Your task to perform on an android device: Show me popular games on the Play Store Image 0: 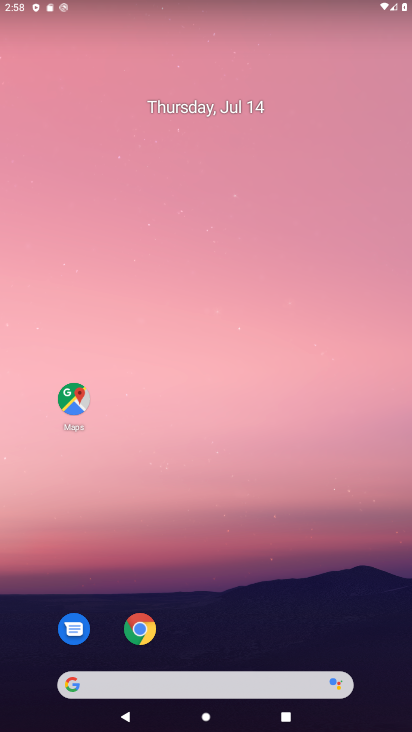
Step 0: drag from (194, 596) to (139, 167)
Your task to perform on an android device: Show me popular games on the Play Store Image 1: 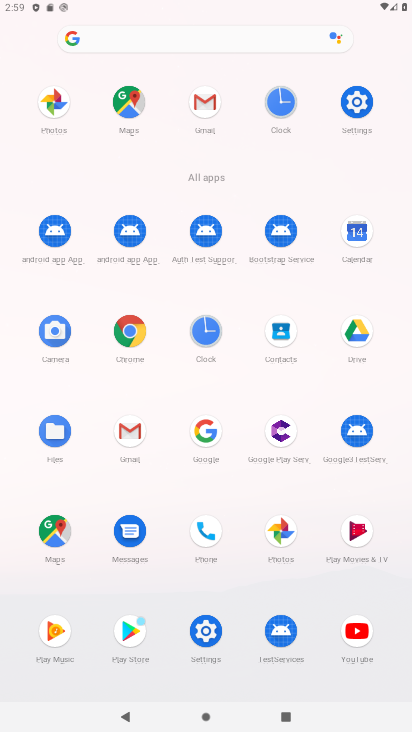
Step 1: click (127, 639)
Your task to perform on an android device: Show me popular games on the Play Store Image 2: 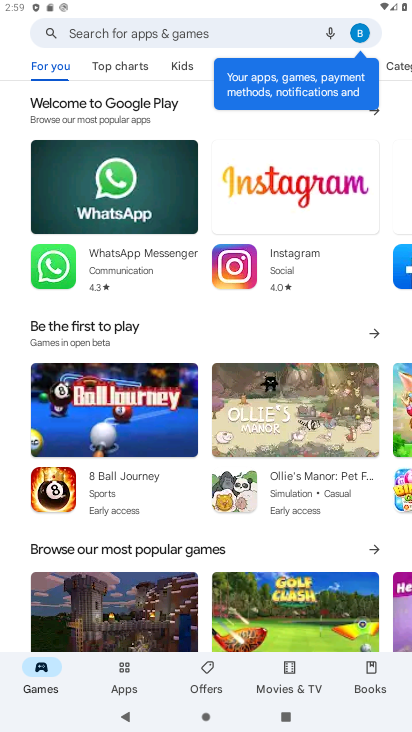
Step 2: click (121, 30)
Your task to perform on an android device: Show me popular games on the Play Store Image 3: 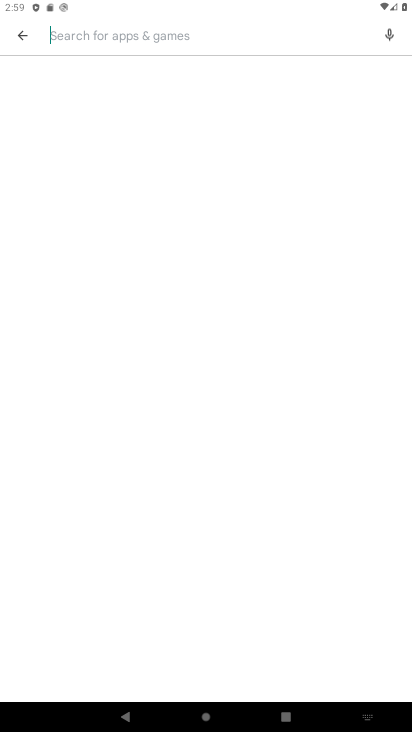
Step 3: type " popular games"
Your task to perform on an android device: Show me popular games on the Play Store Image 4: 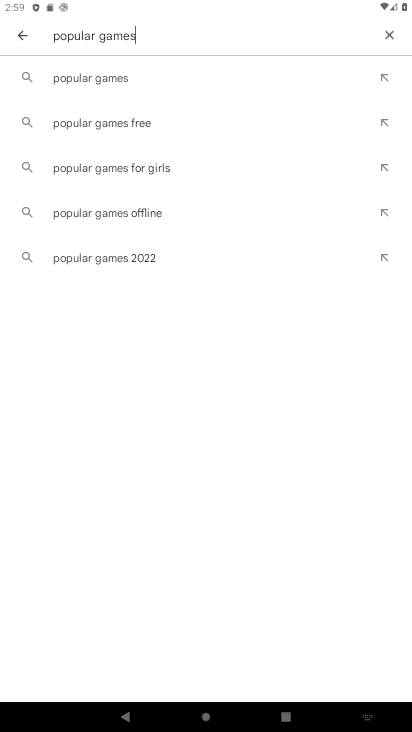
Step 4: click (86, 73)
Your task to perform on an android device: Show me popular games on the Play Store Image 5: 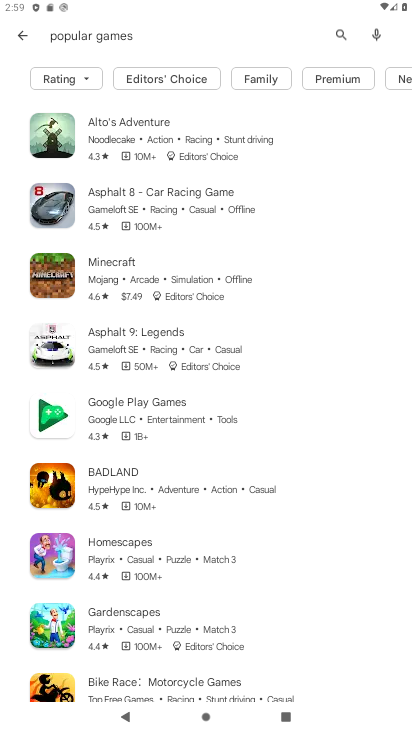
Step 5: task complete